Your task to perform on an android device: Show me popular games on the Play Store Image 0: 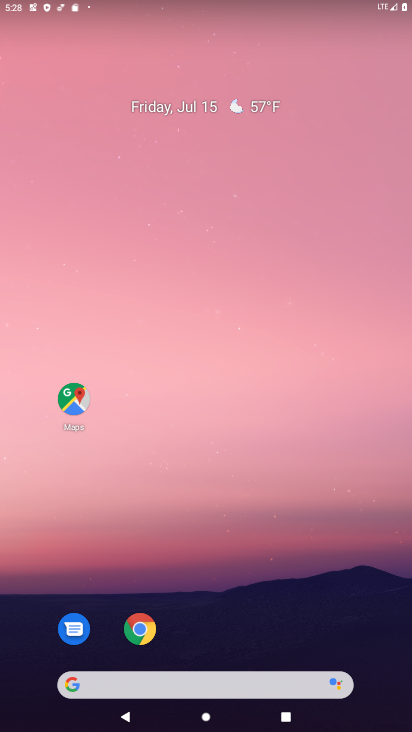
Step 0: press home button
Your task to perform on an android device: Show me popular games on the Play Store Image 1: 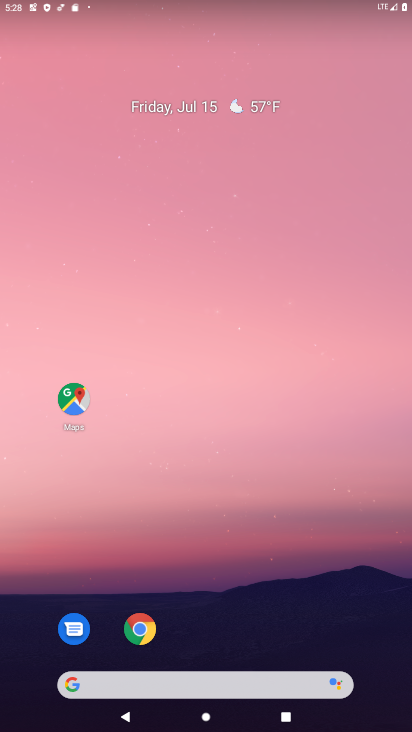
Step 1: drag from (247, 638) to (229, 8)
Your task to perform on an android device: Show me popular games on the Play Store Image 2: 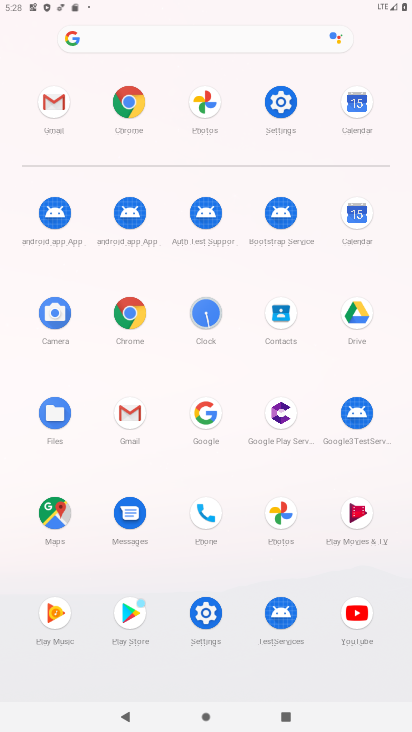
Step 2: click (127, 616)
Your task to perform on an android device: Show me popular games on the Play Store Image 3: 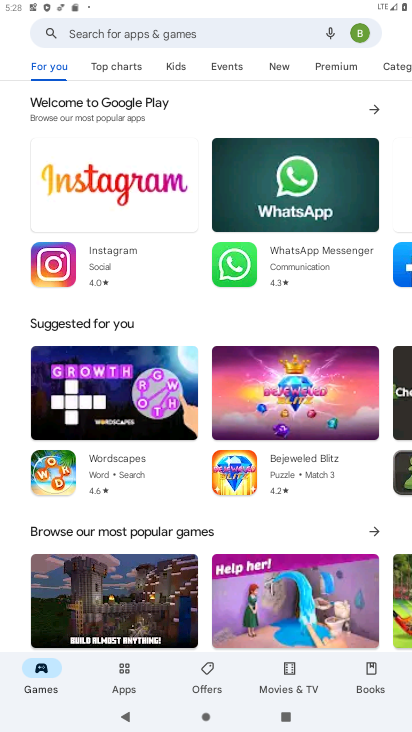
Step 3: click (393, 69)
Your task to perform on an android device: Show me popular games on the Play Store Image 4: 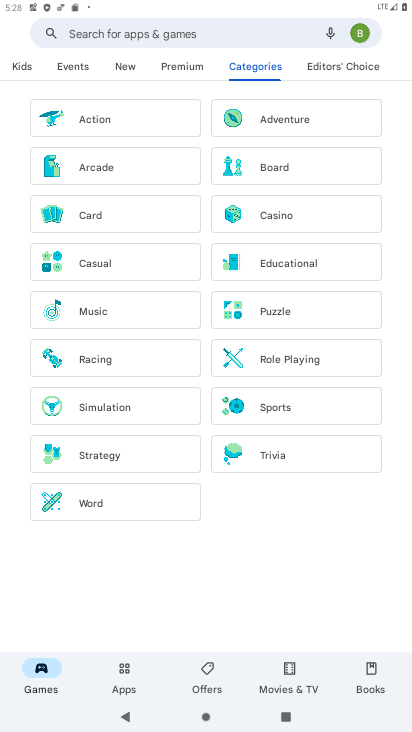
Step 4: task complete